Your task to perform on an android device: turn off wifi Image 0: 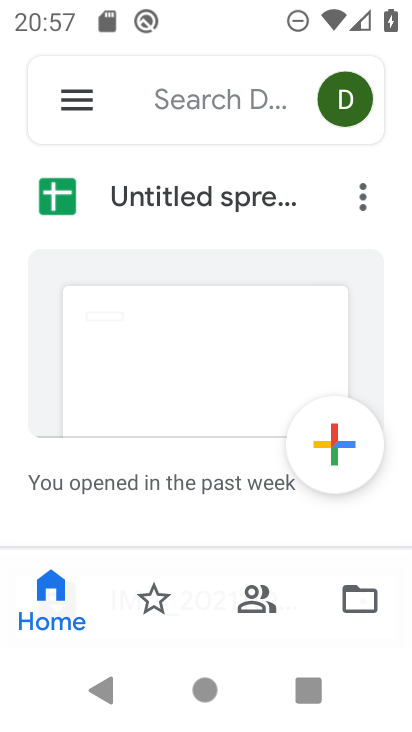
Step 0: press home button
Your task to perform on an android device: turn off wifi Image 1: 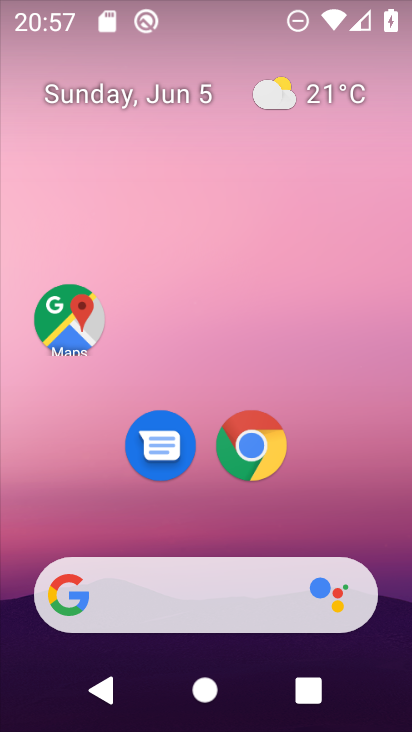
Step 1: drag from (333, 481) to (324, 106)
Your task to perform on an android device: turn off wifi Image 2: 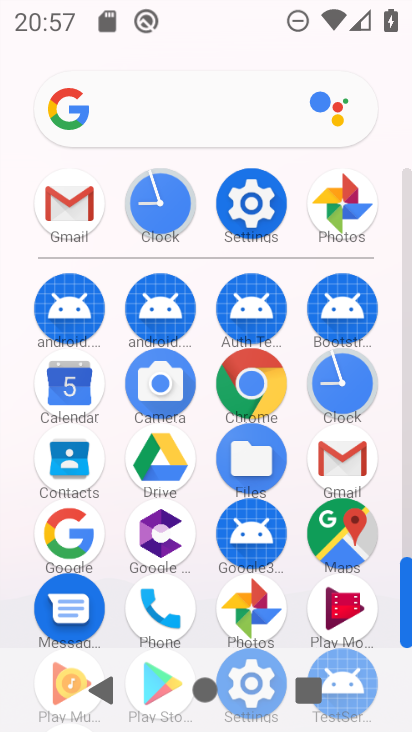
Step 2: click (258, 212)
Your task to perform on an android device: turn off wifi Image 3: 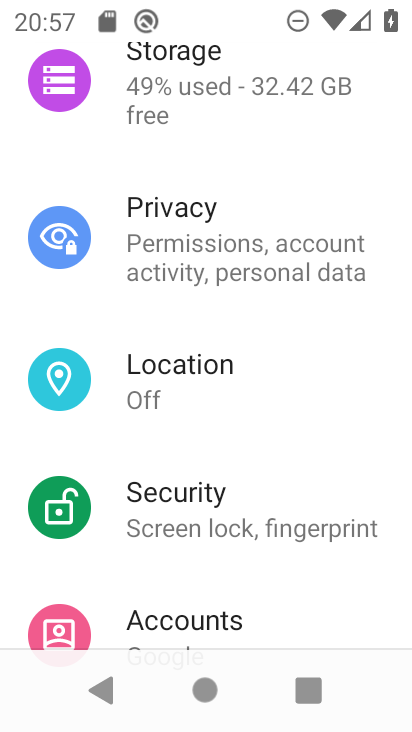
Step 3: drag from (100, 168) to (86, 701)
Your task to perform on an android device: turn off wifi Image 4: 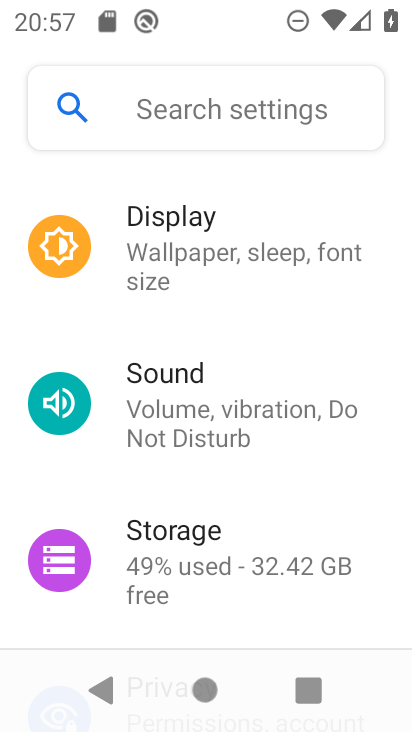
Step 4: drag from (369, 188) to (346, 484)
Your task to perform on an android device: turn off wifi Image 5: 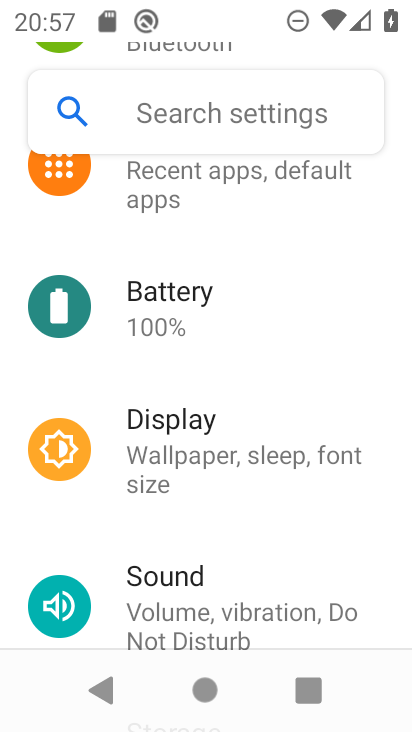
Step 5: drag from (355, 240) to (315, 675)
Your task to perform on an android device: turn off wifi Image 6: 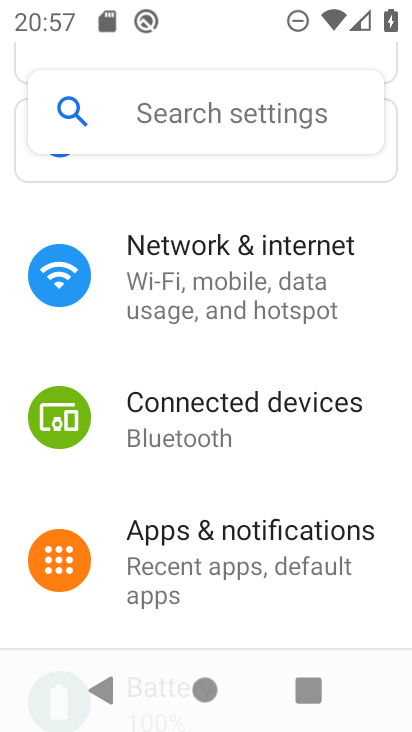
Step 6: click (274, 253)
Your task to perform on an android device: turn off wifi Image 7: 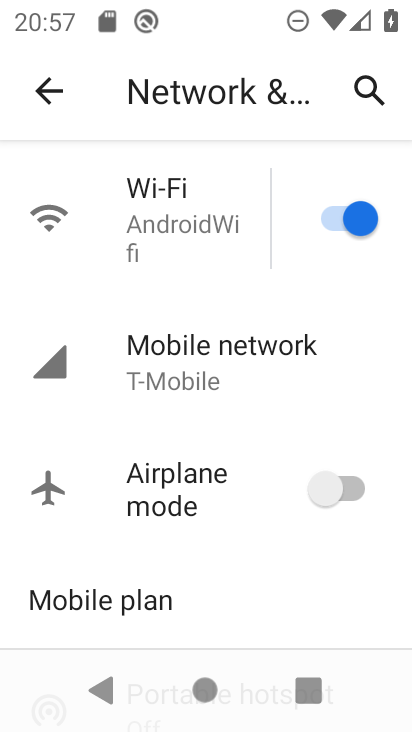
Step 7: click (350, 213)
Your task to perform on an android device: turn off wifi Image 8: 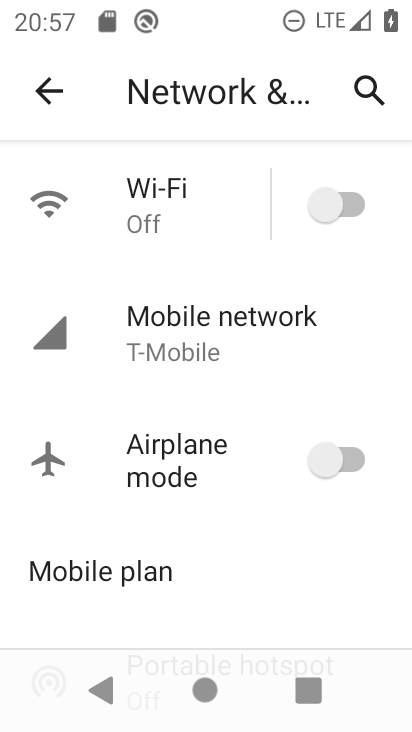
Step 8: task complete